Your task to perform on an android device: When is my next appointment? Image 0: 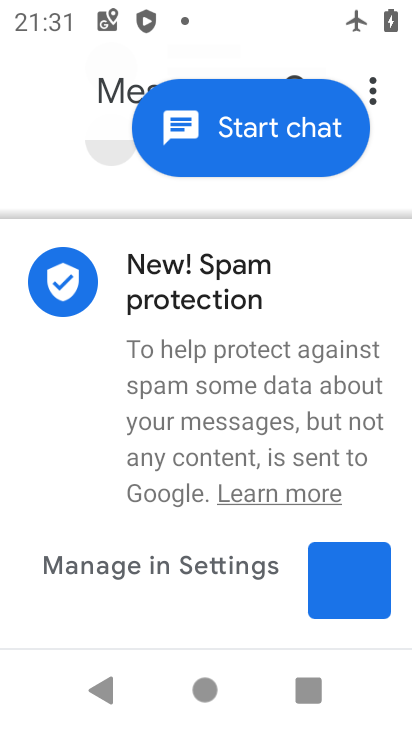
Step 0: press home button
Your task to perform on an android device: When is my next appointment? Image 1: 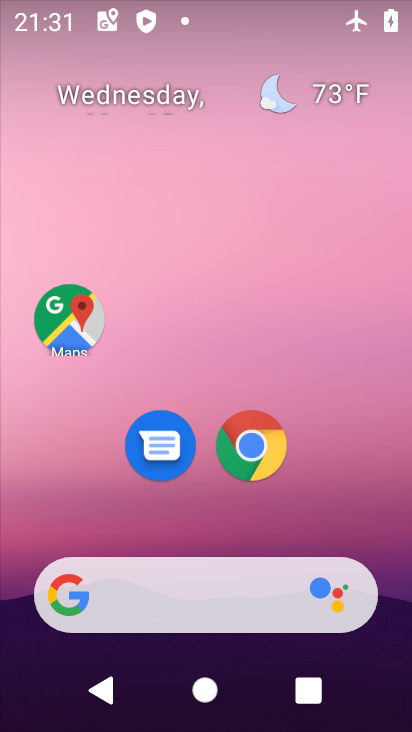
Step 1: drag from (344, 516) to (340, 231)
Your task to perform on an android device: When is my next appointment? Image 2: 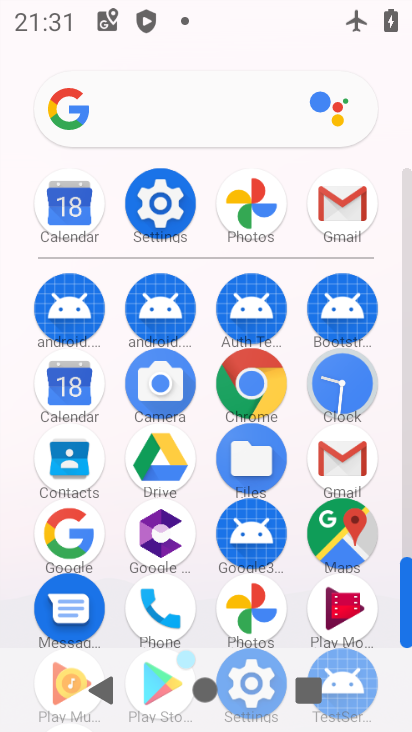
Step 2: drag from (262, 635) to (319, 342)
Your task to perform on an android device: When is my next appointment? Image 3: 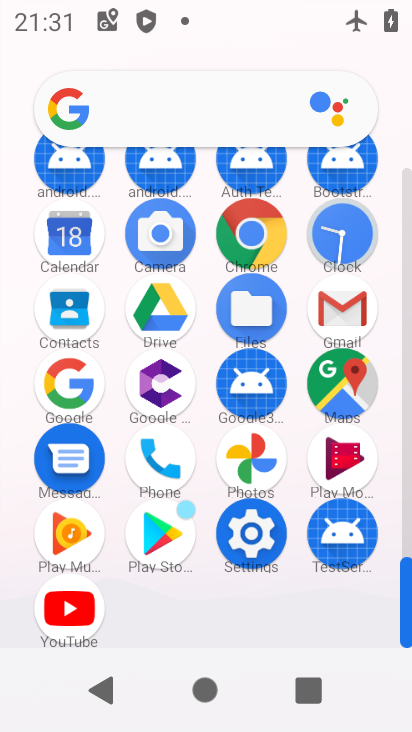
Step 3: click (65, 235)
Your task to perform on an android device: When is my next appointment? Image 4: 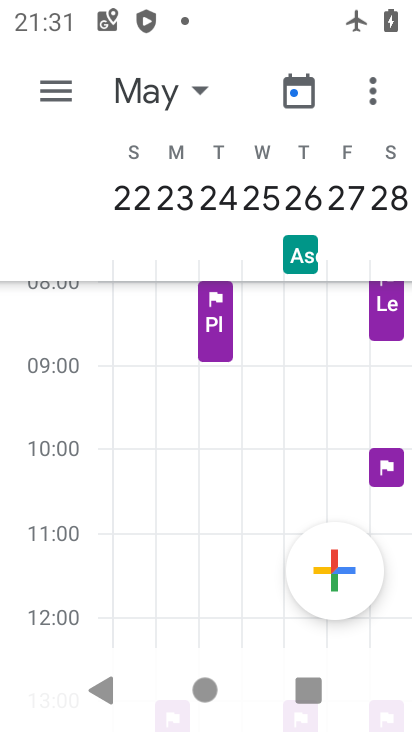
Step 4: click (62, 96)
Your task to perform on an android device: When is my next appointment? Image 5: 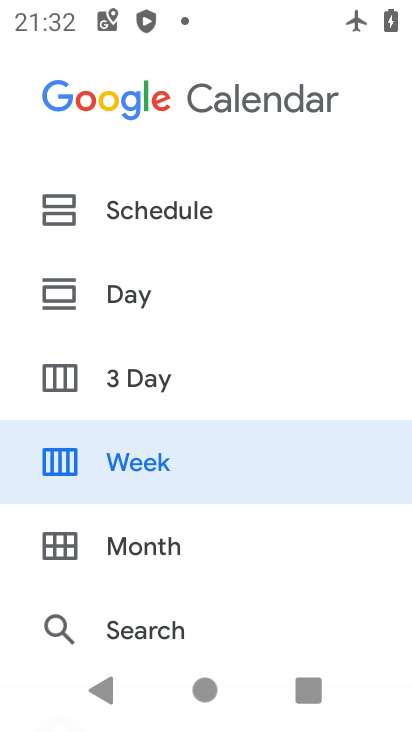
Step 5: click (195, 538)
Your task to perform on an android device: When is my next appointment? Image 6: 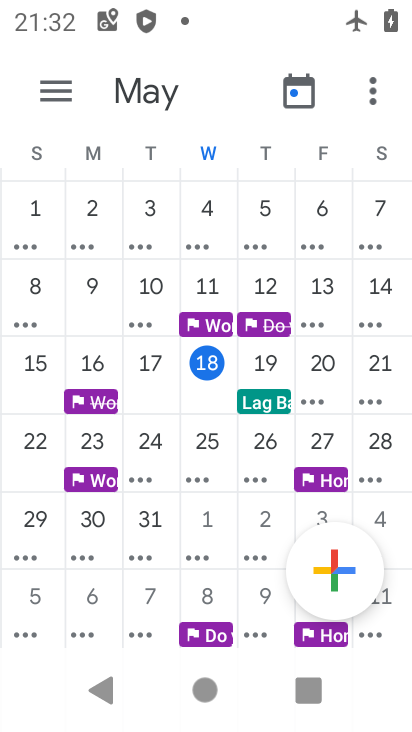
Step 6: click (319, 352)
Your task to perform on an android device: When is my next appointment? Image 7: 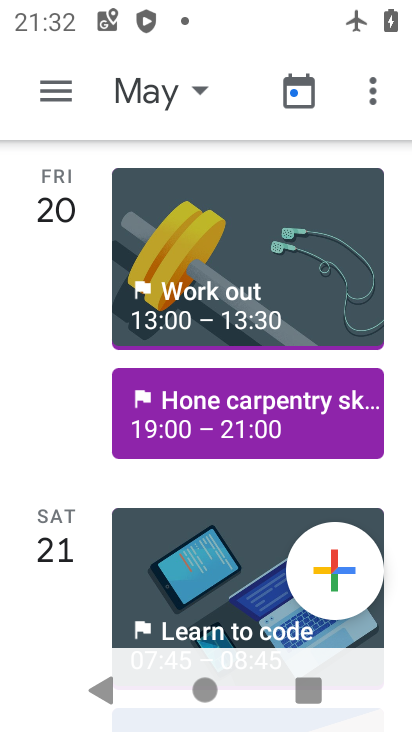
Step 7: task complete